Your task to perform on an android device: Go to Google maps Image 0: 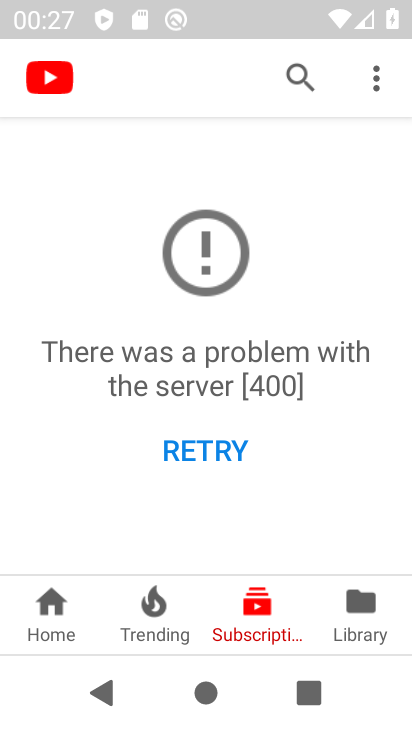
Step 0: click (351, 554)
Your task to perform on an android device: Go to Google maps Image 1: 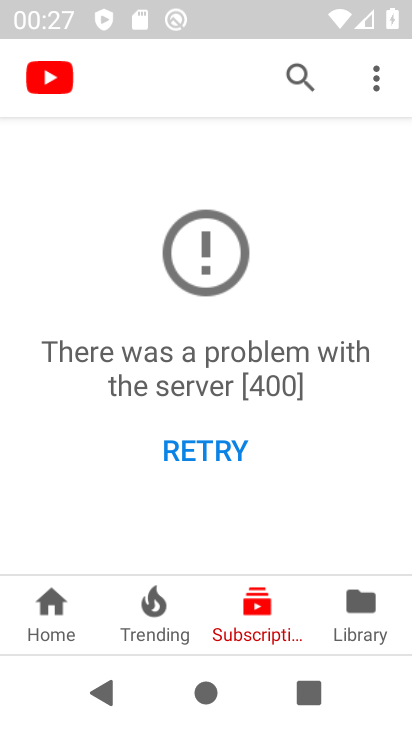
Step 1: press home button
Your task to perform on an android device: Go to Google maps Image 2: 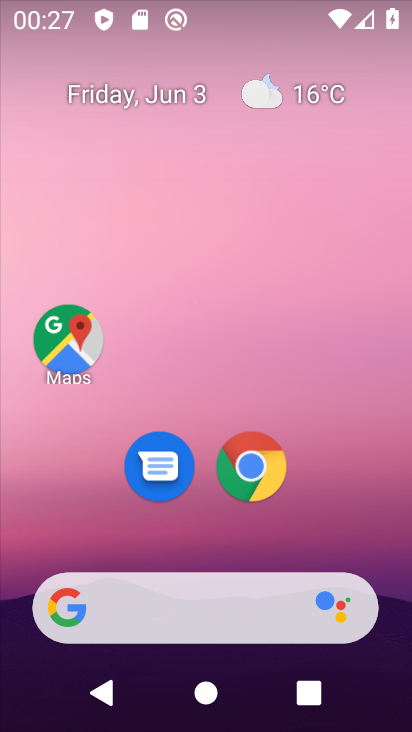
Step 2: click (73, 347)
Your task to perform on an android device: Go to Google maps Image 3: 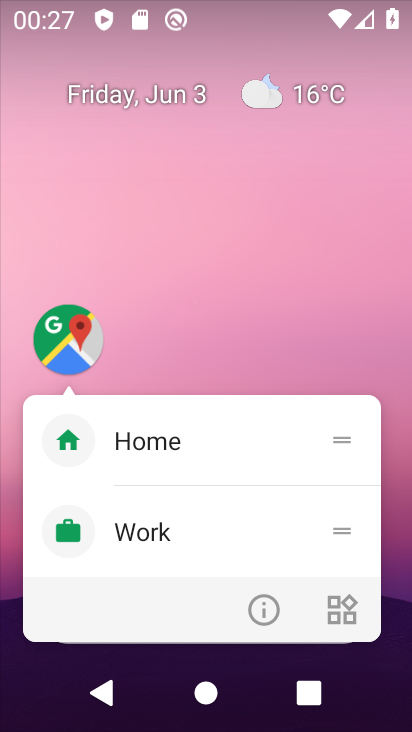
Step 3: click (73, 348)
Your task to perform on an android device: Go to Google maps Image 4: 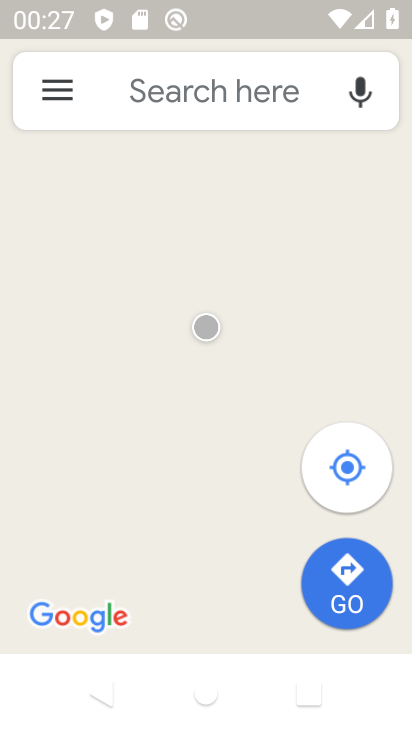
Step 4: task complete